Your task to perform on an android device: delete location history Image 0: 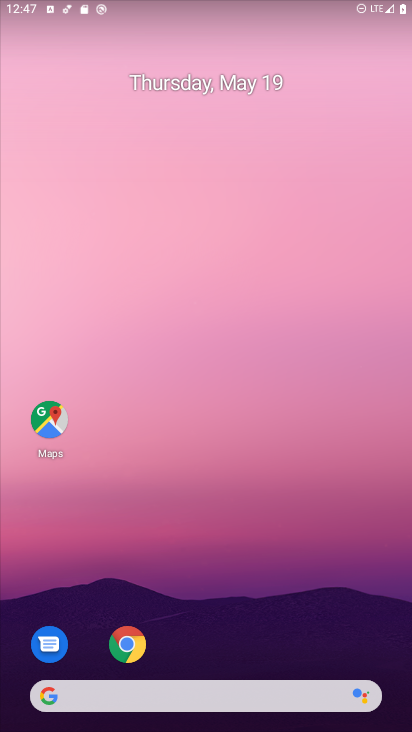
Step 0: drag from (338, 637) to (187, 86)
Your task to perform on an android device: delete location history Image 1: 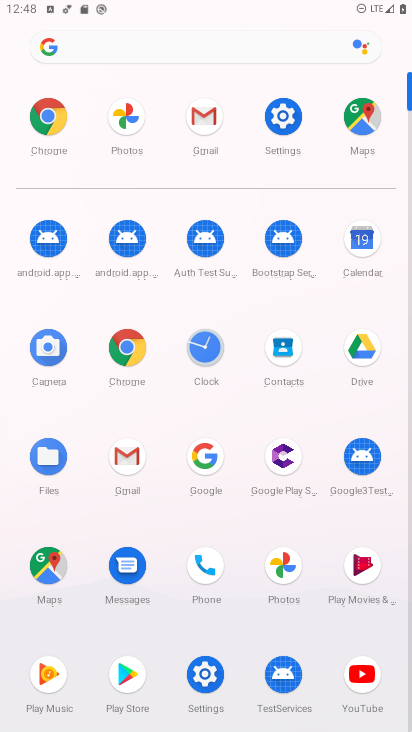
Step 1: click (284, 141)
Your task to perform on an android device: delete location history Image 2: 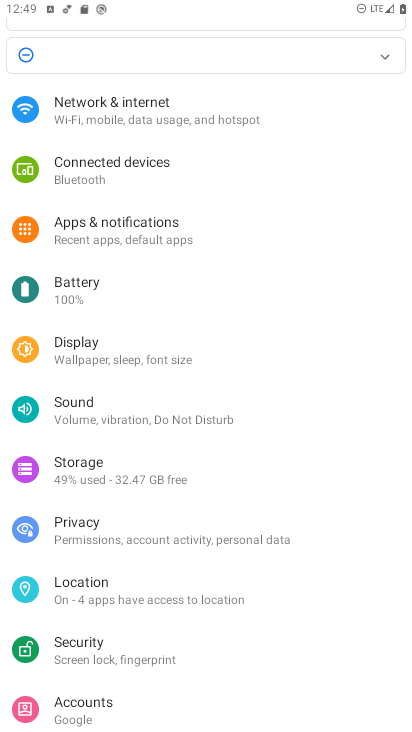
Step 2: click (114, 579)
Your task to perform on an android device: delete location history Image 3: 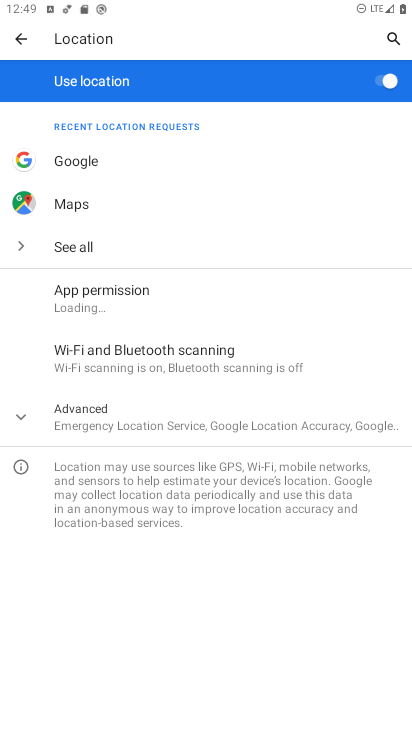
Step 3: click (110, 426)
Your task to perform on an android device: delete location history Image 4: 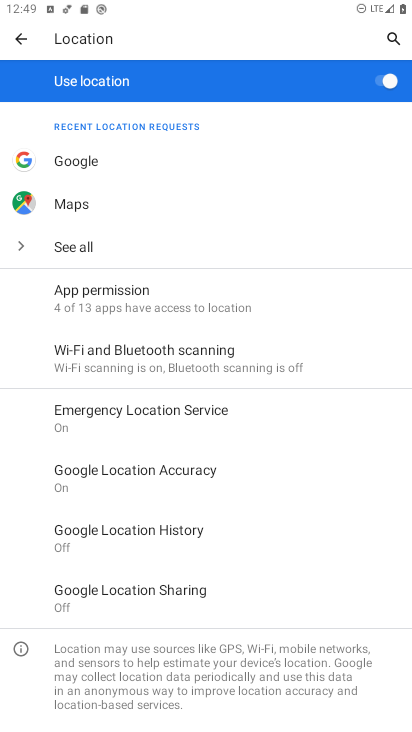
Step 4: click (172, 542)
Your task to perform on an android device: delete location history Image 5: 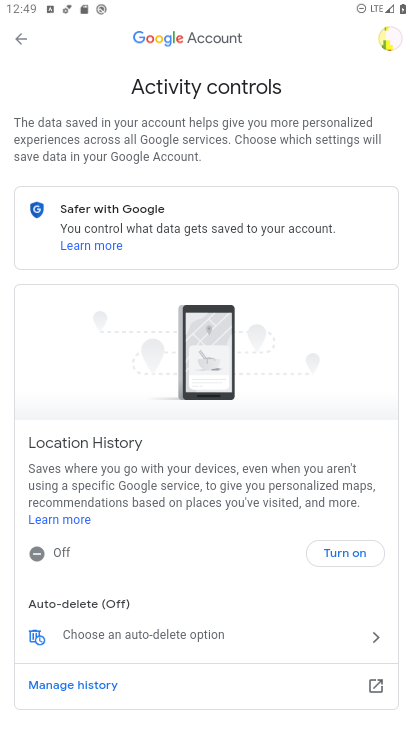
Step 5: drag from (184, 616) to (235, 330)
Your task to perform on an android device: delete location history Image 6: 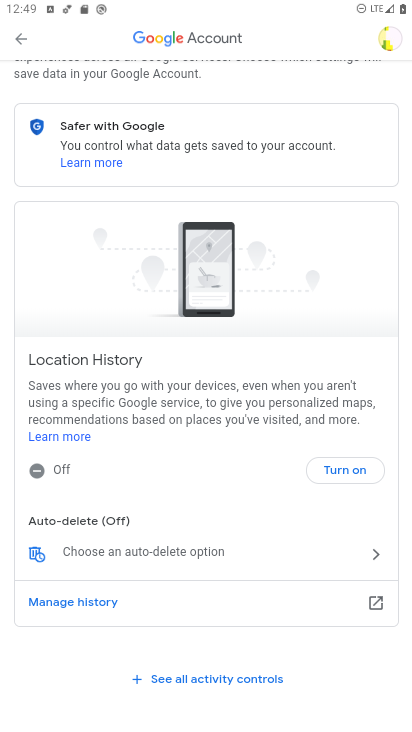
Step 6: click (198, 550)
Your task to perform on an android device: delete location history Image 7: 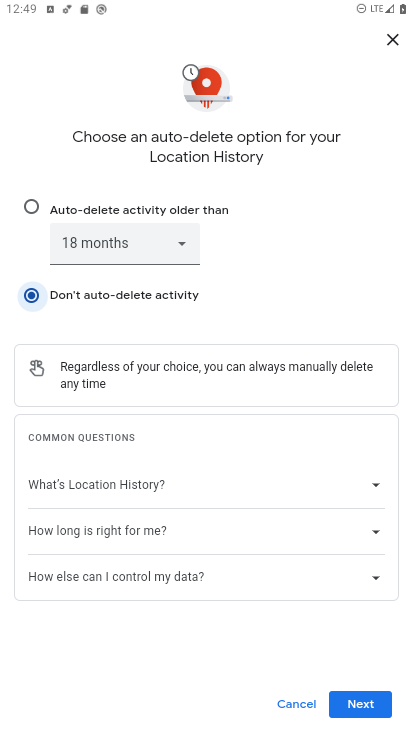
Step 7: click (361, 717)
Your task to perform on an android device: delete location history Image 8: 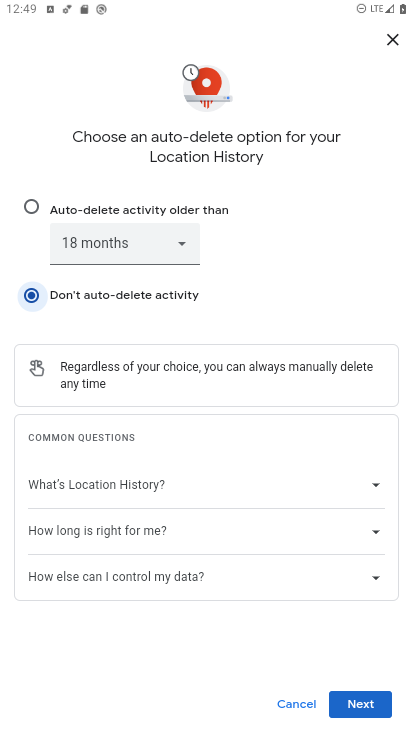
Step 8: click (363, 710)
Your task to perform on an android device: delete location history Image 9: 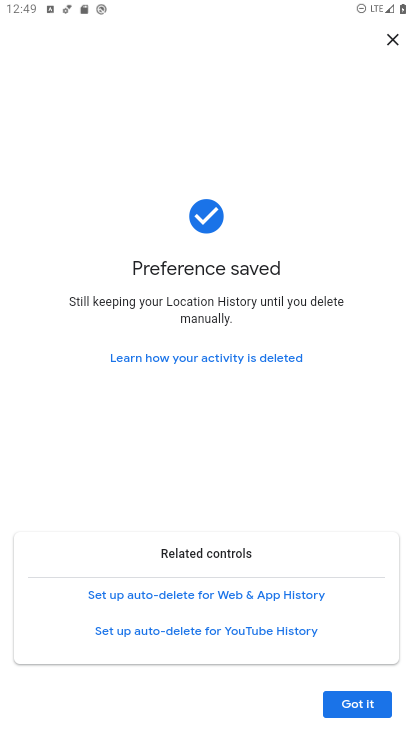
Step 9: click (353, 708)
Your task to perform on an android device: delete location history Image 10: 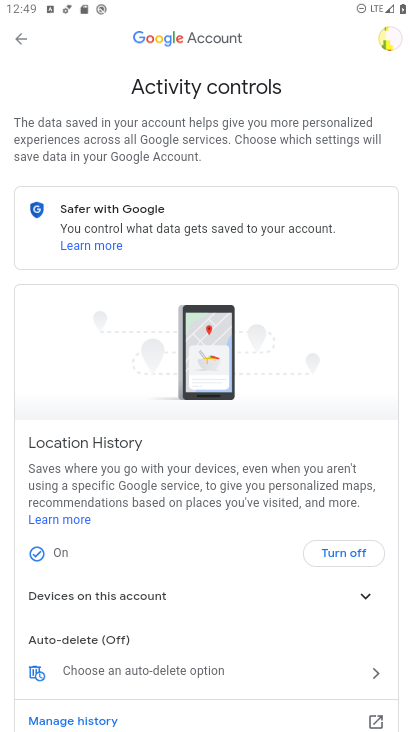
Step 10: task complete